Your task to perform on an android device: Set the phone to "Do not disturb". Image 0: 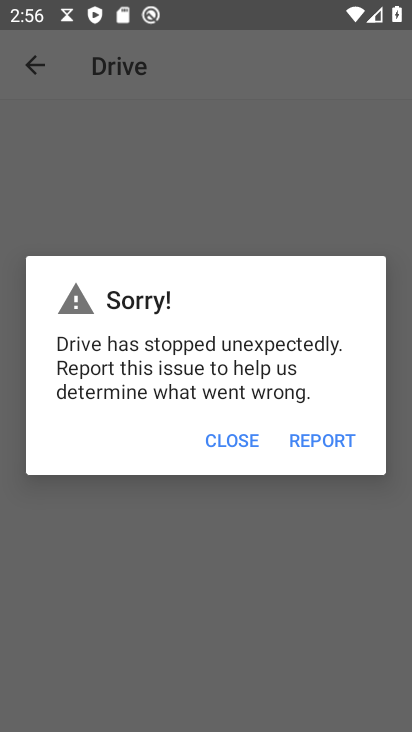
Step 0: press home button
Your task to perform on an android device: Set the phone to "Do not disturb". Image 1: 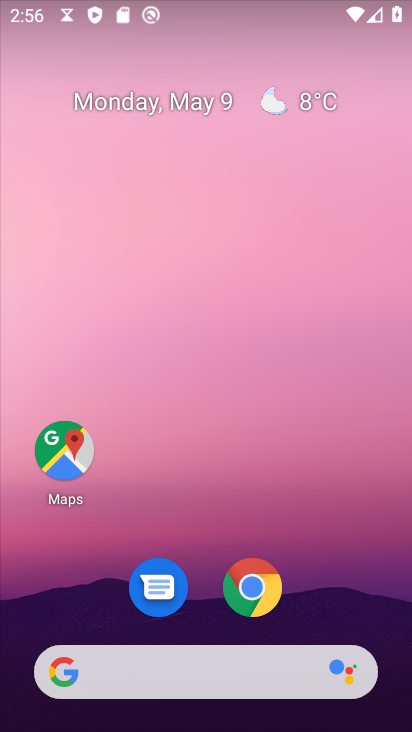
Step 1: drag from (279, 508) to (276, 229)
Your task to perform on an android device: Set the phone to "Do not disturb". Image 2: 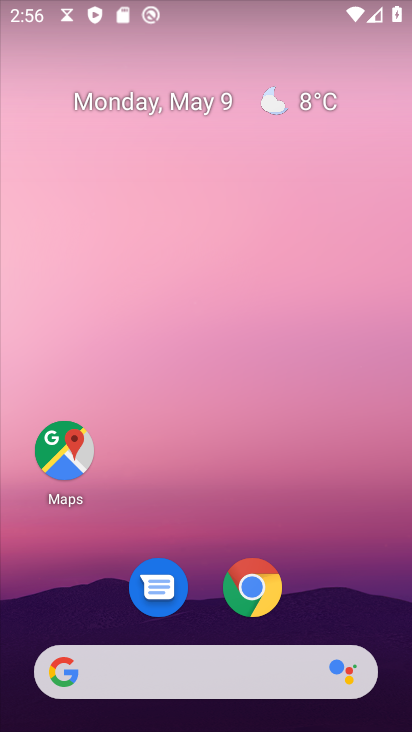
Step 2: drag from (245, 475) to (231, 71)
Your task to perform on an android device: Set the phone to "Do not disturb". Image 3: 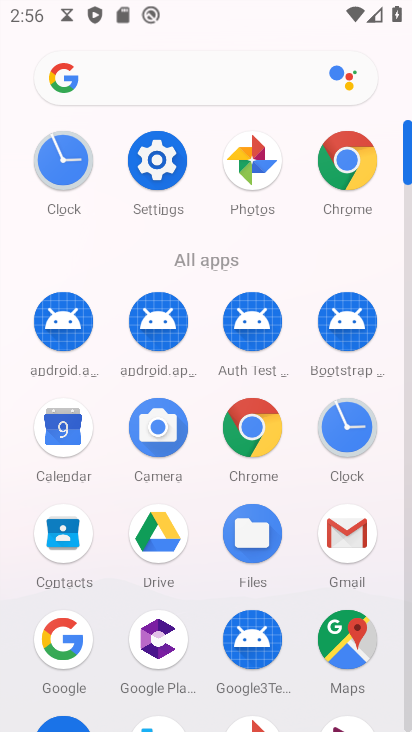
Step 3: click (179, 178)
Your task to perform on an android device: Set the phone to "Do not disturb". Image 4: 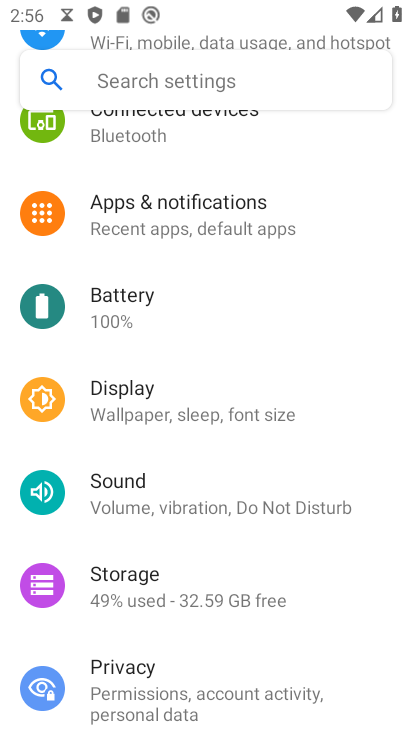
Step 4: drag from (215, 251) to (243, 550)
Your task to perform on an android device: Set the phone to "Do not disturb". Image 5: 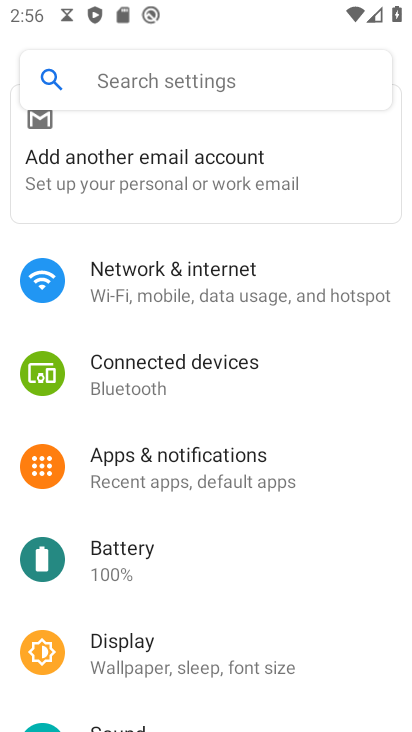
Step 5: drag from (239, 3) to (291, 731)
Your task to perform on an android device: Set the phone to "Do not disturb". Image 6: 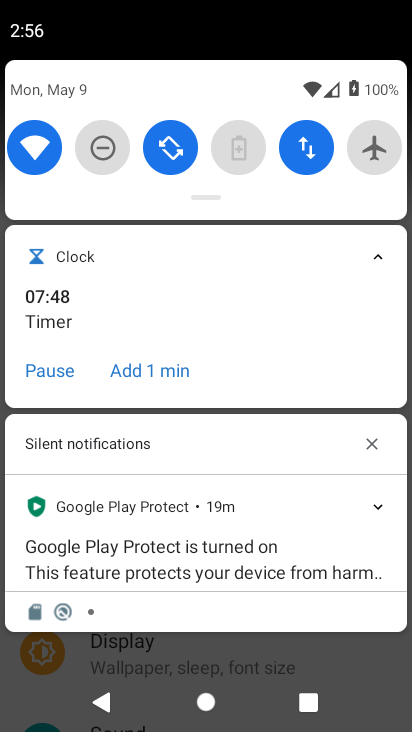
Step 6: click (117, 149)
Your task to perform on an android device: Set the phone to "Do not disturb". Image 7: 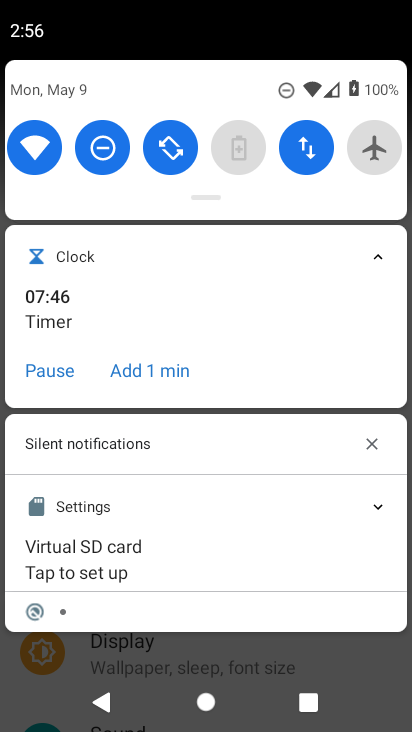
Step 7: task complete